Your task to perform on an android device: turn off smart reply in the gmail app Image 0: 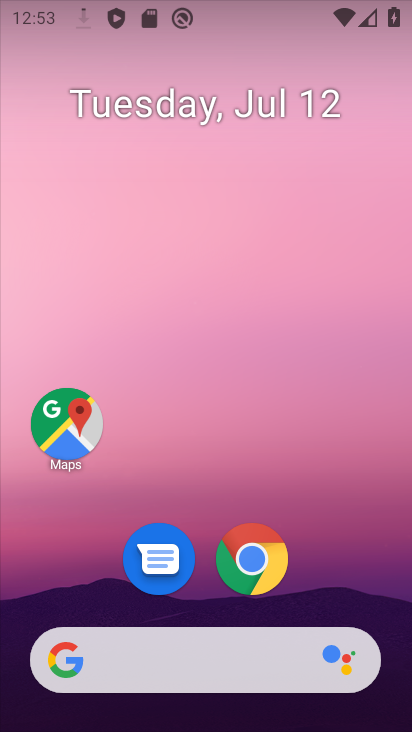
Step 0: drag from (372, 589) to (369, 116)
Your task to perform on an android device: turn off smart reply in the gmail app Image 1: 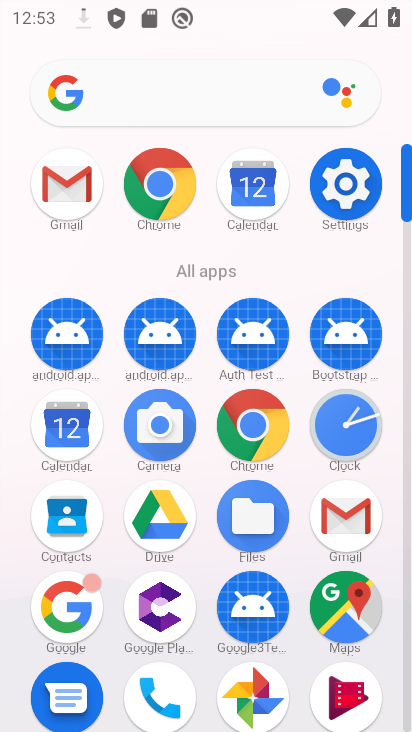
Step 1: click (365, 523)
Your task to perform on an android device: turn off smart reply in the gmail app Image 2: 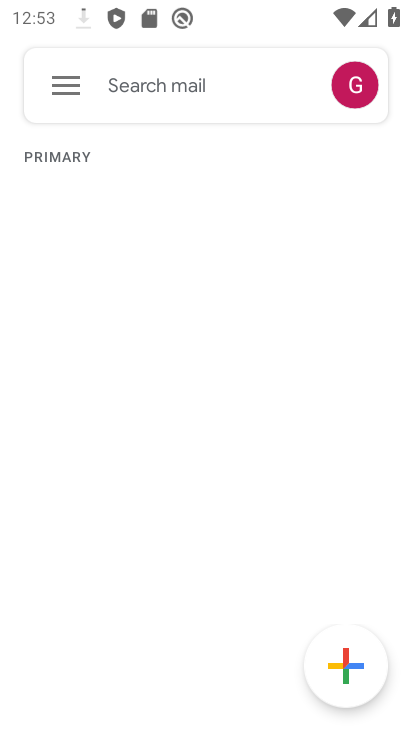
Step 2: click (65, 84)
Your task to perform on an android device: turn off smart reply in the gmail app Image 3: 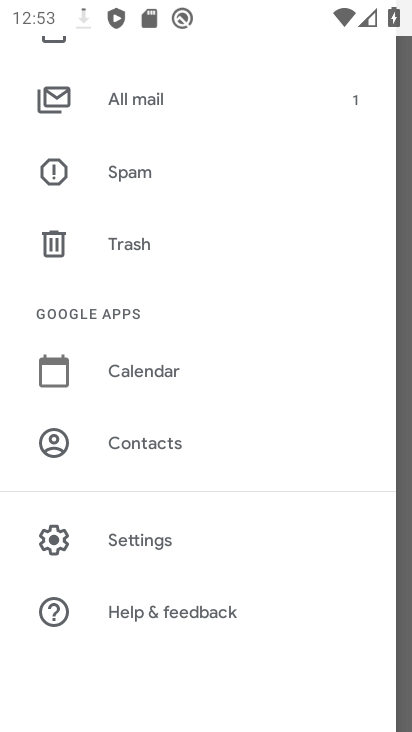
Step 3: drag from (276, 312) to (289, 413)
Your task to perform on an android device: turn off smart reply in the gmail app Image 4: 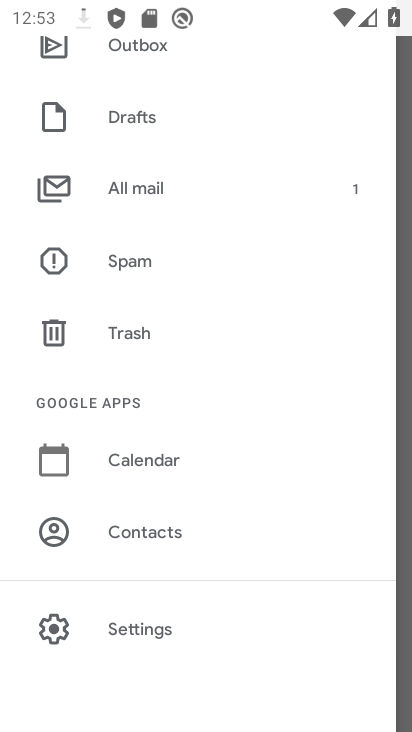
Step 4: drag from (292, 453) to (308, 231)
Your task to perform on an android device: turn off smart reply in the gmail app Image 5: 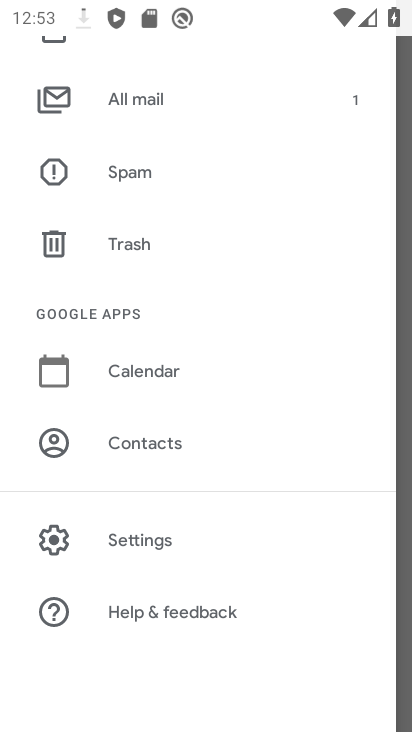
Step 5: click (148, 545)
Your task to perform on an android device: turn off smart reply in the gmail app Image 6: 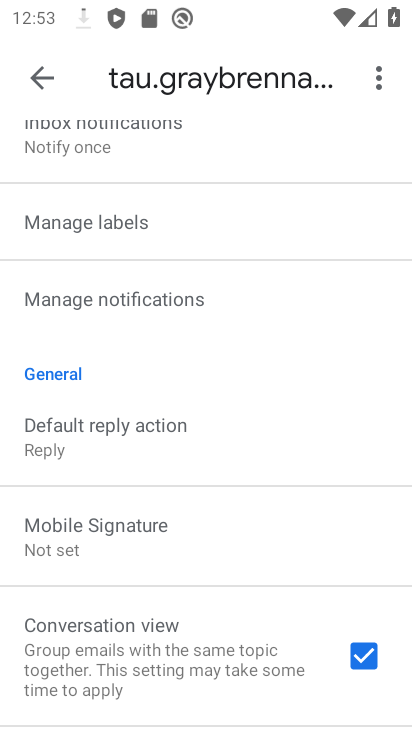
Step 6: drag from (266, 379) to (280, 444)
Your task to perform on an android device: turn off smart reply in the gmail app Image 7: 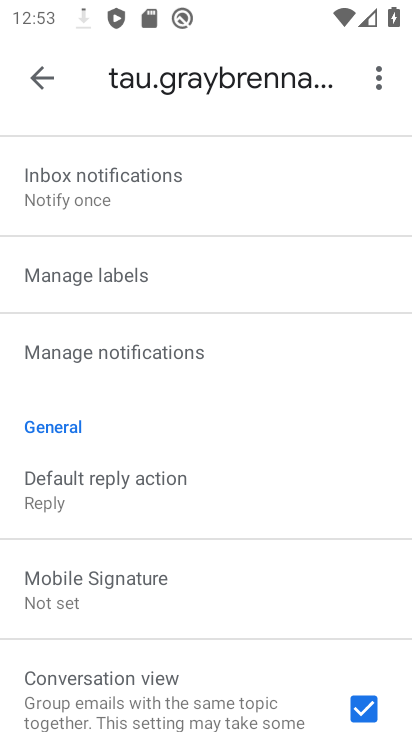
Step 7: drag from (265, 264) to (270, 391)
Your task to perform on an android device: turn off smart reply in the gmail app Image 8: 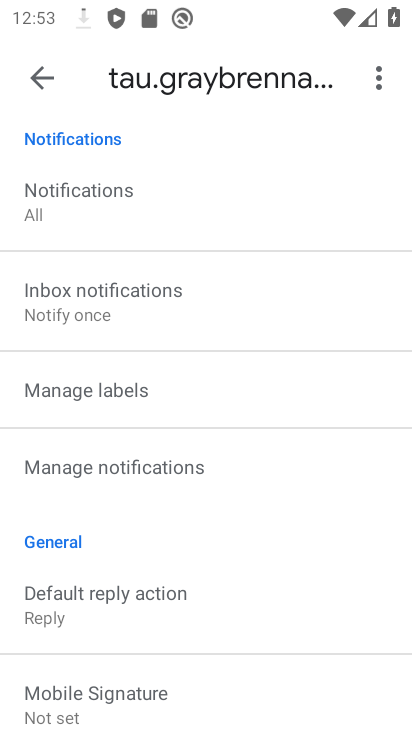
Step 8: drag from (269, 193) to (278, 349)
Your task to perform on an android device: turn off smart reply in the gmail app Image 9: 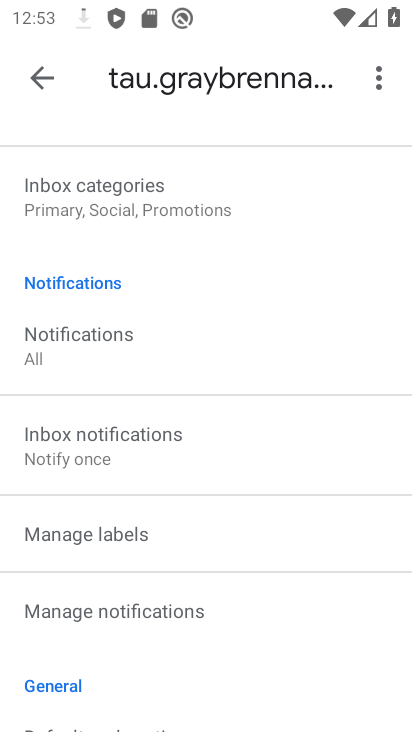
Step 9: drag from (276, 173) to (284, 361)
Your task to perform on an android device: turn off smart reply in the gmail app Image 10: 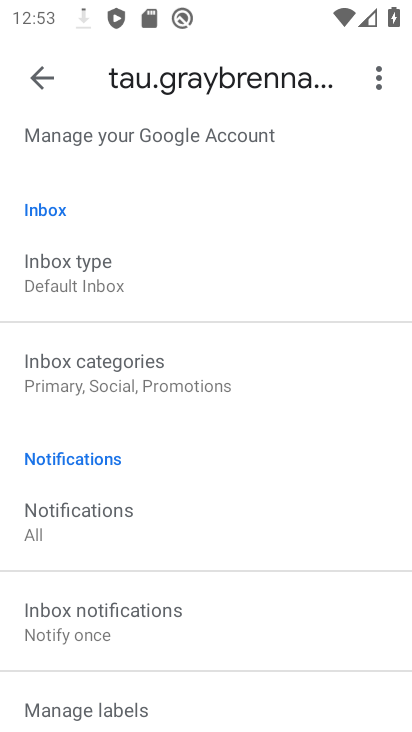
Step 10: drag from (282, 215) to (283, 378)
Your task to perform on an android device: turn off smart reply in the gmail app Image 11: 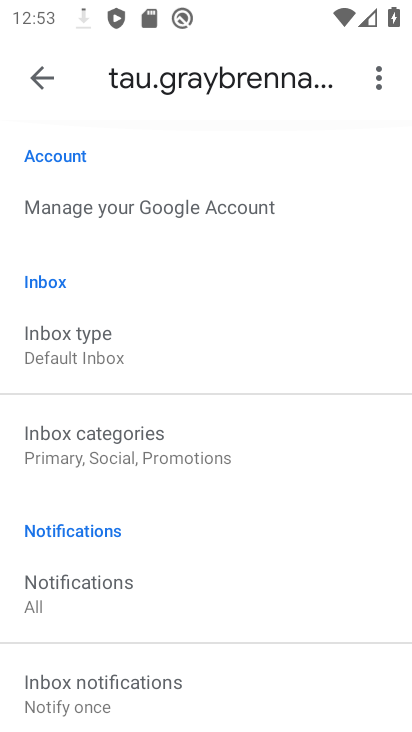
Step 11: drag from (298, 401) to (308, 282)
Your task to perform on an android device: turn off smart reply in the gmail app Image 12: 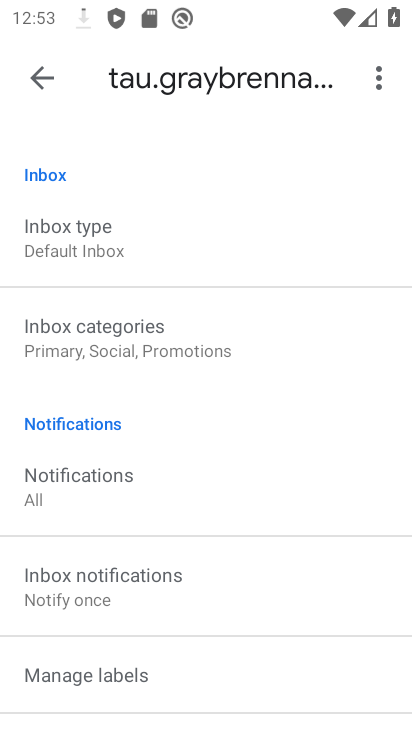
Step 12: drag from (302, 439) to (308, 354)
Your task to perform on an android device: turn off smart reply in the gmail app Image 13: 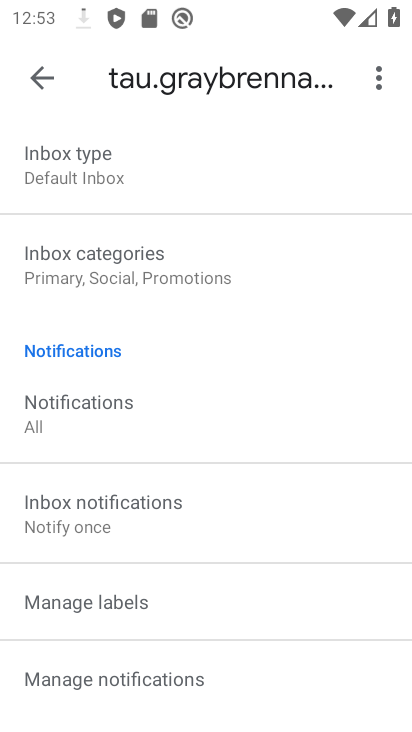
Step 13: drag from (306, 456) to (311, 357)
Your task to perform on an android device: turn off smart reply in the gmail app Image 14: 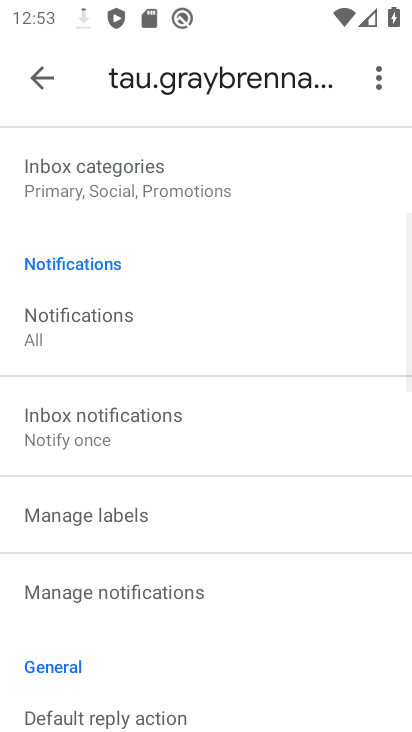
Step 14: drag from (311, 466) to (322, 354)
Your task to perform on an android device: turn off smart reply in the gmail app Image 15: 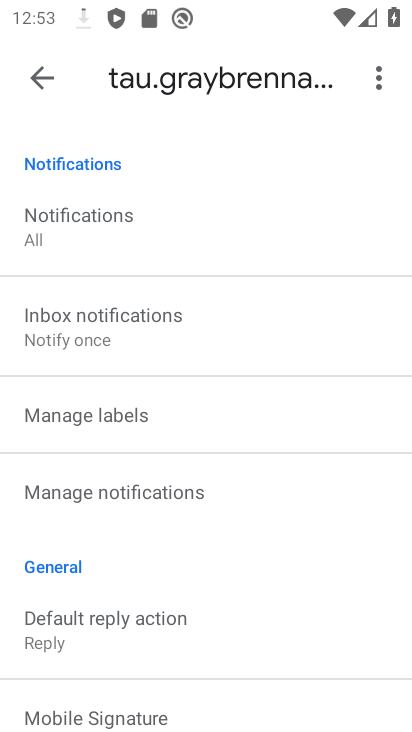
Step 15: drag from (322, 449) to (328, 353)
Your task to perform on an android device: turn off smart reply in the gmail app Image 16: 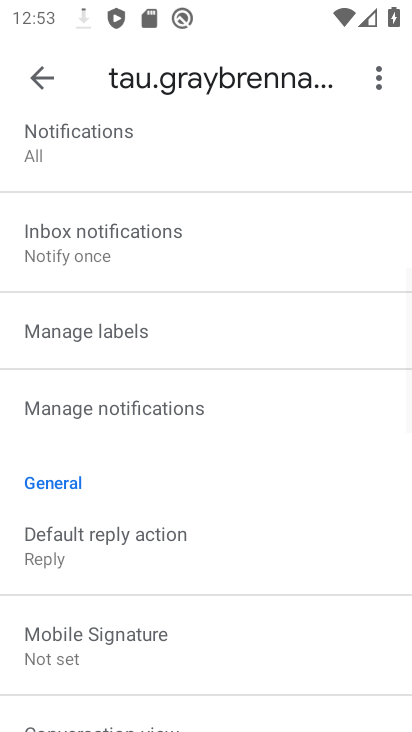
Step 16: drag from (328, 441) to (326, 333)
Your task to perform on an android device: turn off smart reply in the gmail app Image 17: 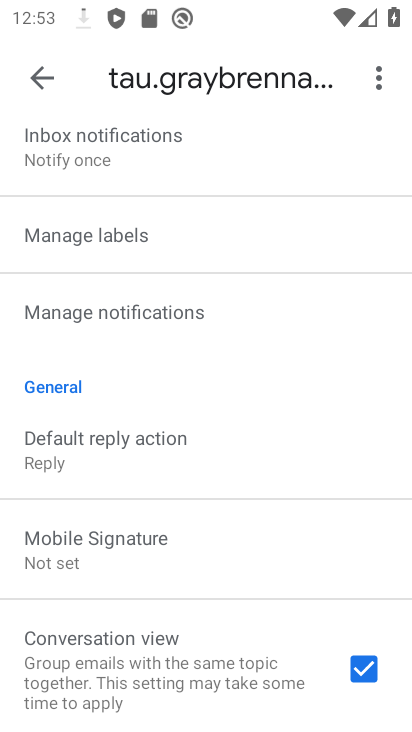
Step 17: drag from (325, 460) to (316, 292)
Your task to perform on an android device: turn off smart reply in the gmail app Image 18: 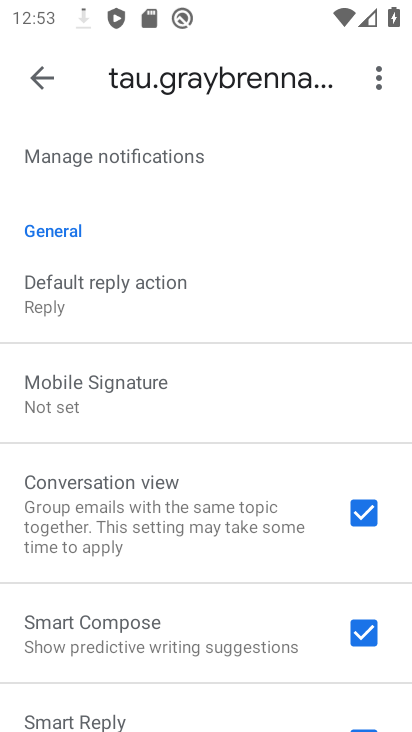
Step 18: drag from (300, 558) to (314, 383)
Your task to perform on an android device: turn off smart reply in the gmail app Image 19: 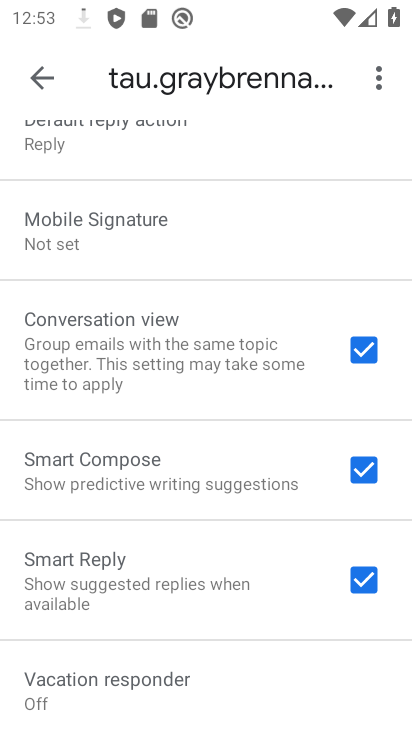
Step 19: drag from (284, 645) to (292, 539)
Your task to perform on an android device: turn off smart reply in the gmail app Image 20: 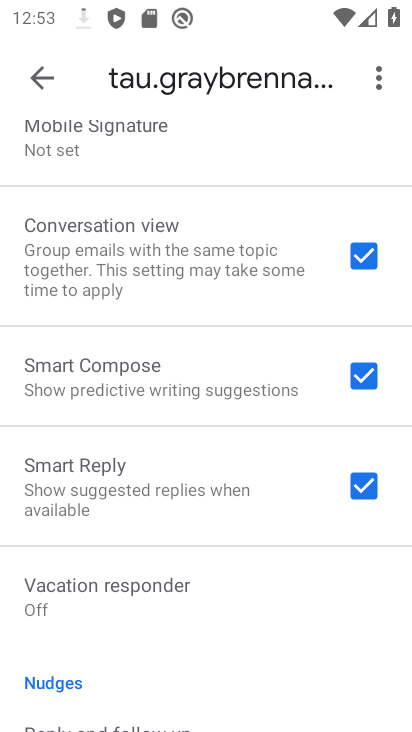
Step 20: click (365, 470)
Your task to perform on an android device: turn off smart reply in the gmail app Image 21: 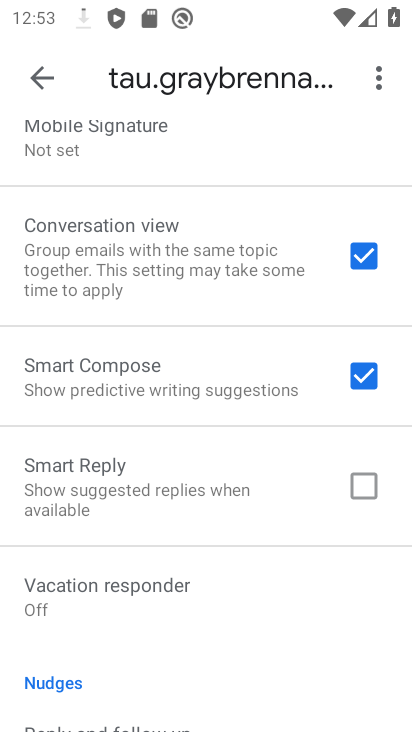
Step 21: task complete